Your task to perform on an android device: toggle data saver in the chrome app Image 0: 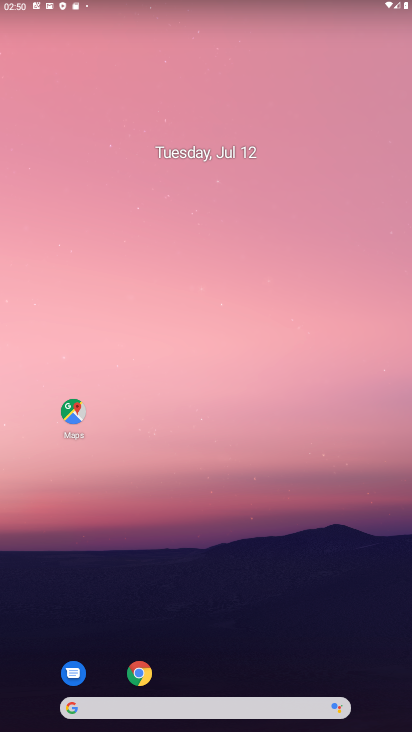
Step 0: press home button
Your task to perform on an android device: toggle data saver in the chrome app Image 1: 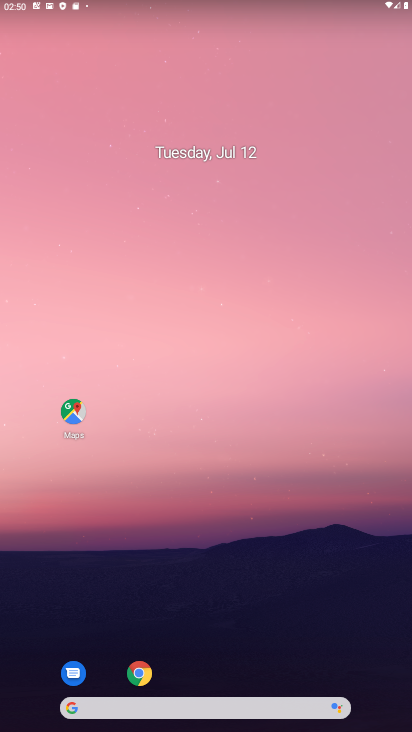
Step 1: click (145, 681)
Your task to perform on an android device: toggle data saver in the chrome app Image 2: 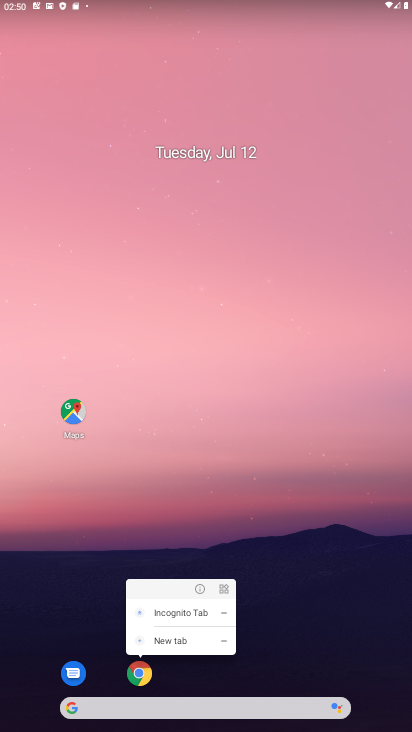
Step 2: click (131, 668)
Your task to perform on an android device: toggle data saver in the chrome app Image 3: 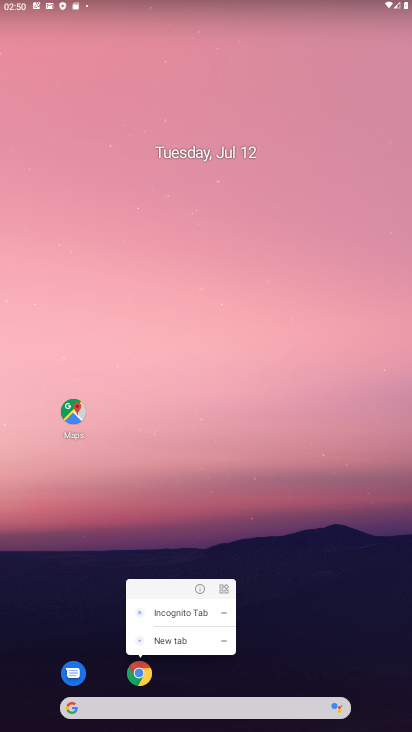
Step 3: click (137, 674)
Your task to perform on an android device: toggle data saver in the chrome app Image 4: 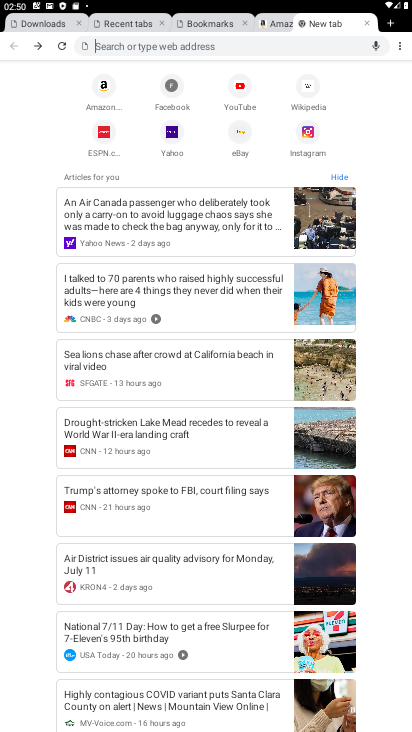
Step 4: drag from (399, 44) to (306, 210)
Your task to perform on an android device: toggle data saver in the chrome app Image 5: 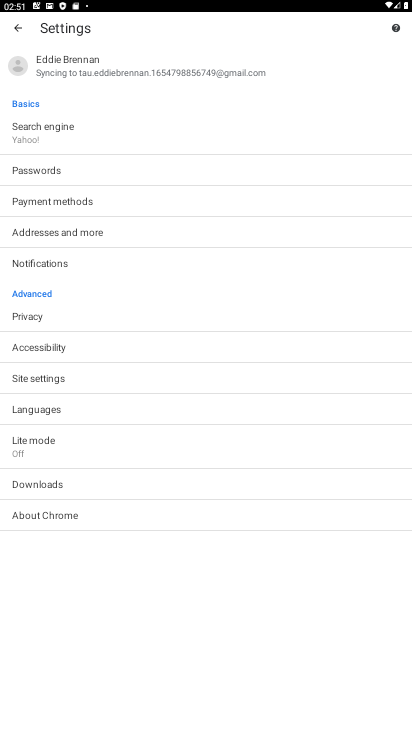
Step 5: click (47, 444)
Your task to perform on an android device: toggle data saver in the chrome app Image 6: 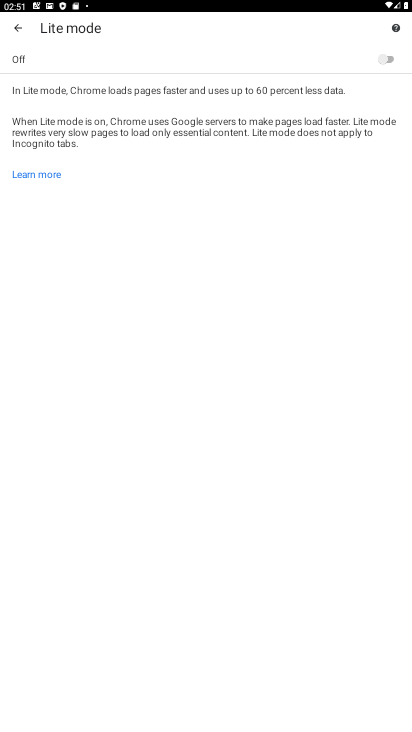
Step 6: click (382, 55)
Your task to perform on an android device: toggle data saver in the chrome app Image 7: 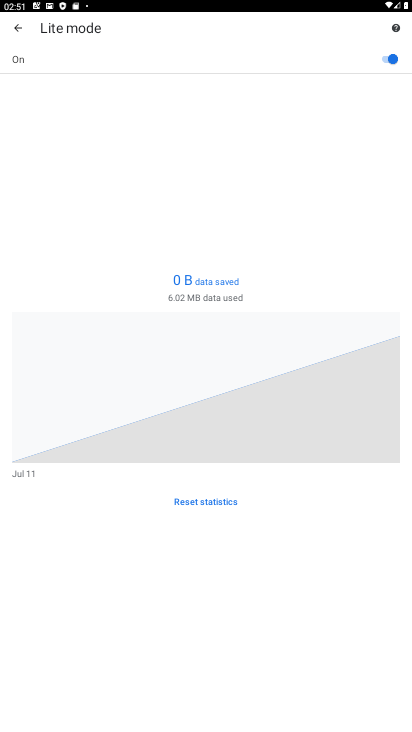
Step 7: task complete